Your task to perform on an android device: Go to Maps Image 0: 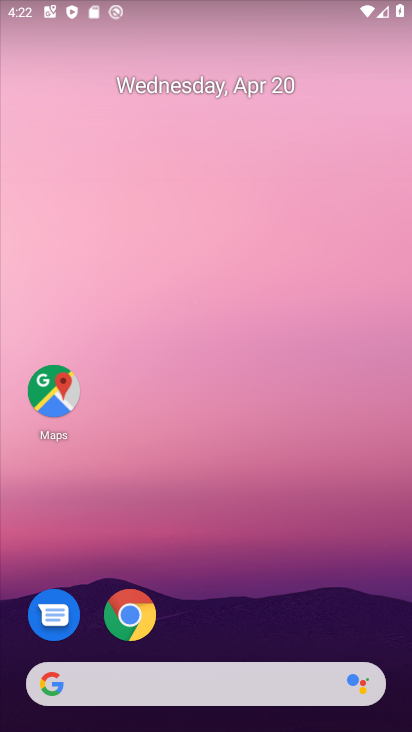
Step 0: click (58, 387)
Your task to perform on an android device: Go to Maps Image 1: 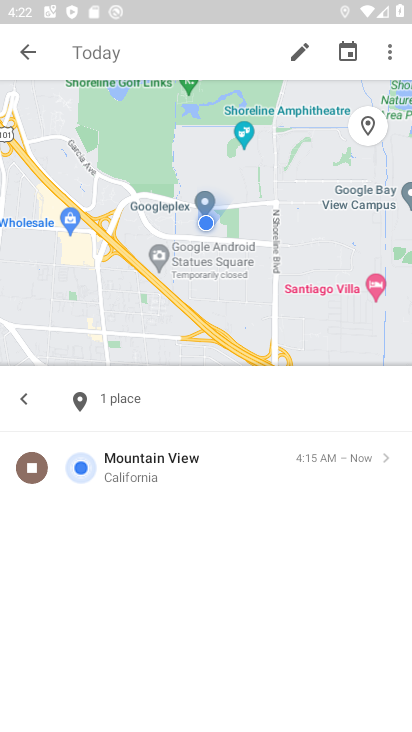
Step 1: click (23, 51)
Your task to perform on an android device: Go to Maps Image 2: 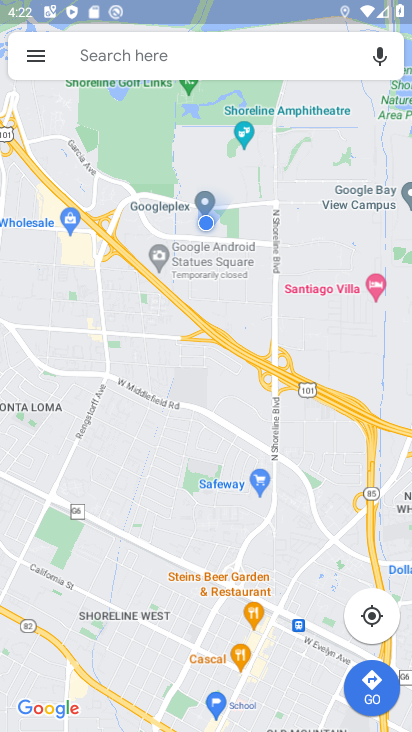
Step 2: task complete